Your task to perform on an android device: turn off notifications in google photos Image 0: 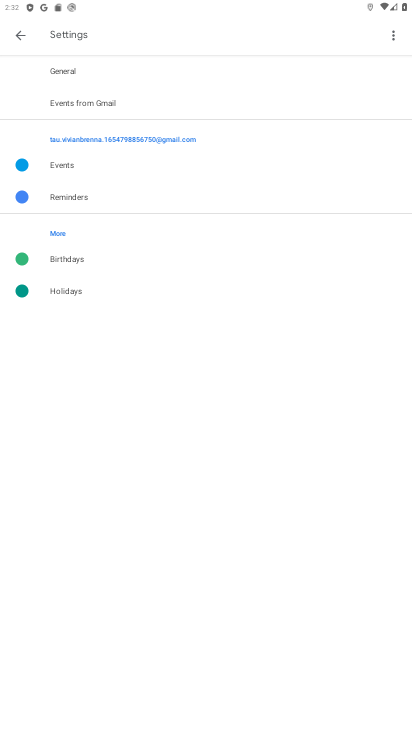
Step 0: press home button
Your task to perform on an android device: turn off notifications in google photos Image 1: 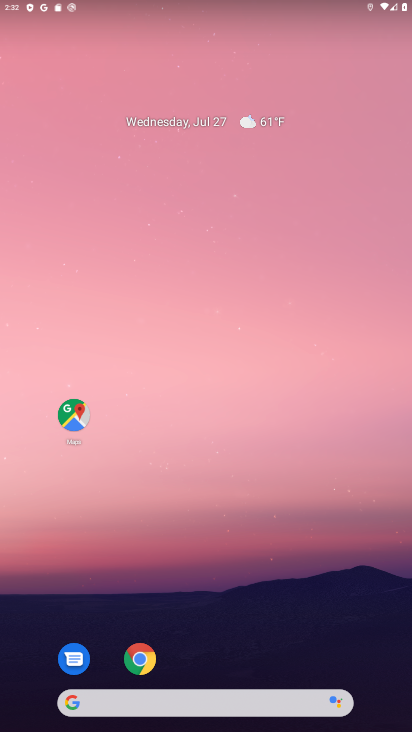
Step 1: drag from (181, 685) to (219, 185)
Your task to perform on an android device: turn off notifications in google photos Image 2: 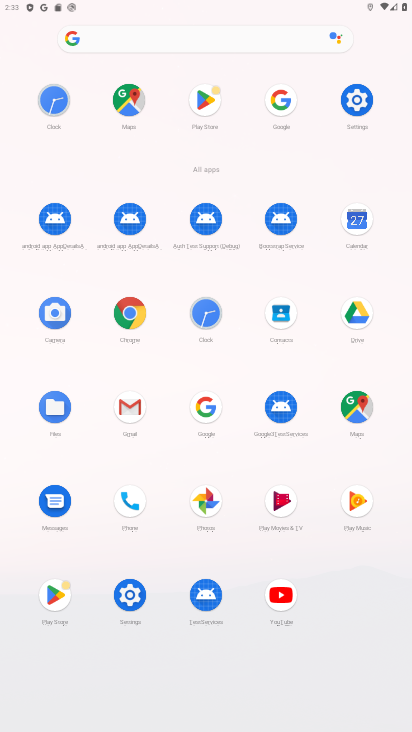
Step 2: click (207, 499)
Your task to perform on an android device: turn off notifications in google photos Image 3: 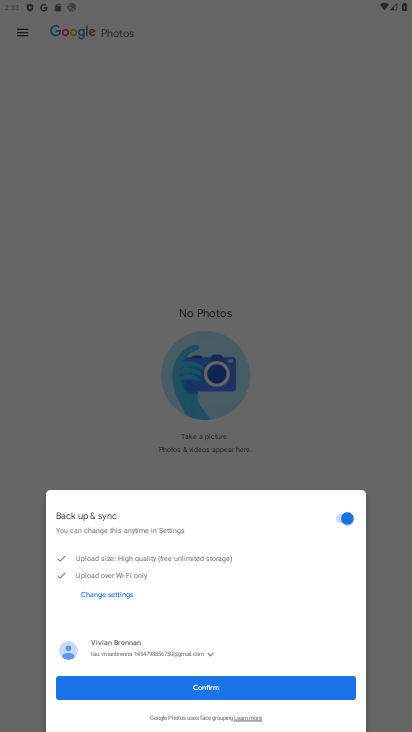
Step 3: click (186, 691)
Your task to perform on an android device: turn off notifications in google photos Image 4: 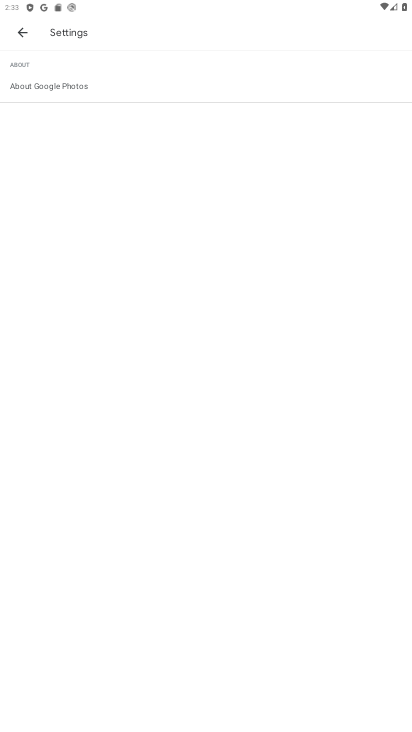
Step 4: click (21, 33)
Your task to perform on an android device: turn off notifications in google photos Image 5: 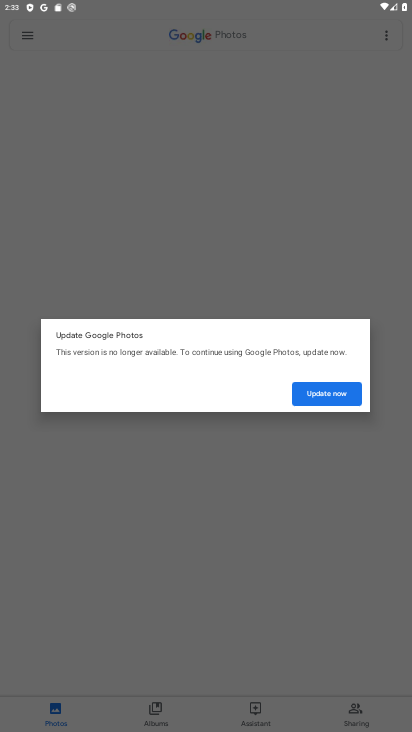
Step 5: click (25, 37)
Your task to perform on an android device: turn off notifications in google photos Image 6: 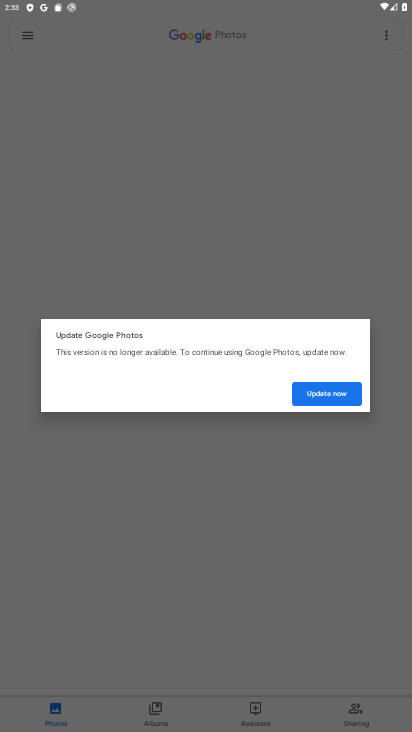
Step 6: click (345, 394)
Your task to perform on an android device: turn off notifications in google photos Image 7: 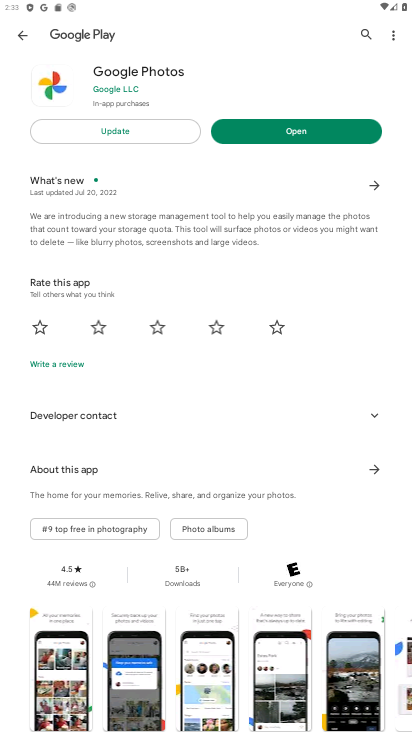
Step 7: click (101, 135)
Your task to perform on an android device: turn off notifications in google photos Image 8: 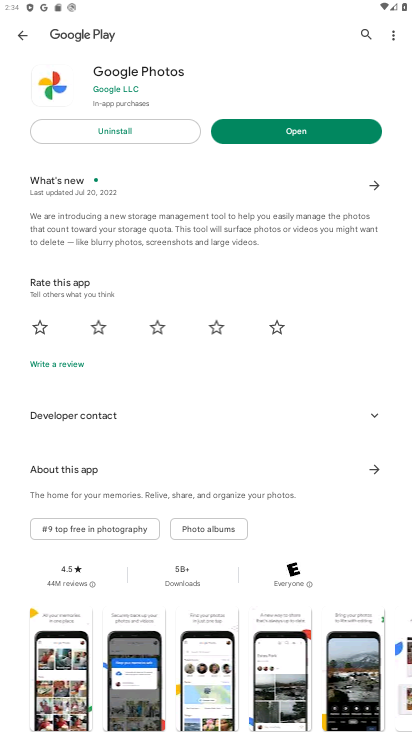
Step 8: click (263, 133)
Your task to perform on an android device: turn off notifications in google photos Image 9: 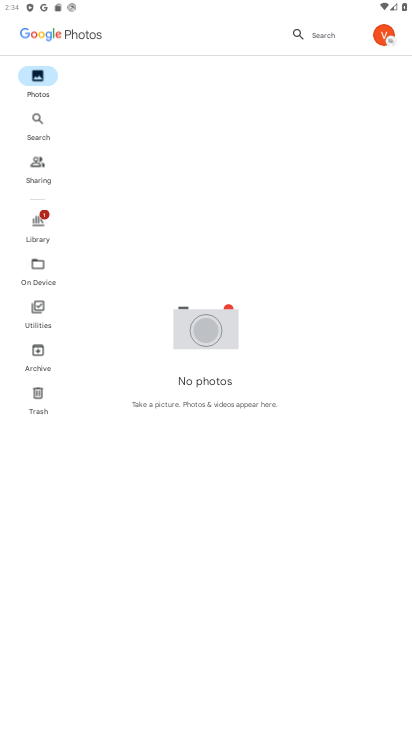
Step 9: click (388, 36)
Your task to perform on an android device: turn off notifications in google photos Image 10: 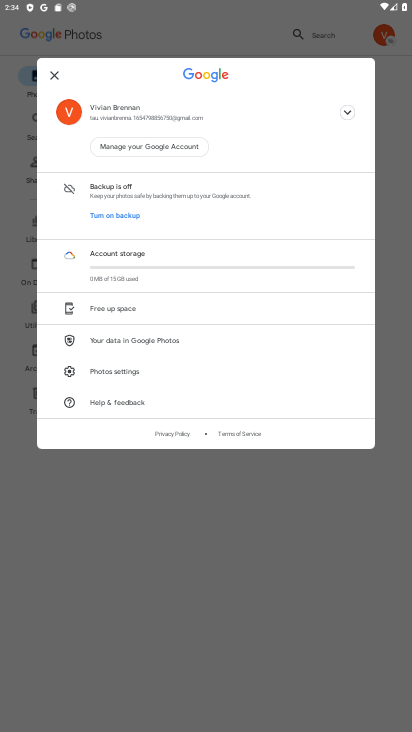
Step 10: click (100, 365)
Your task to perform on an android device: turn off notifications in google photos Image 11: 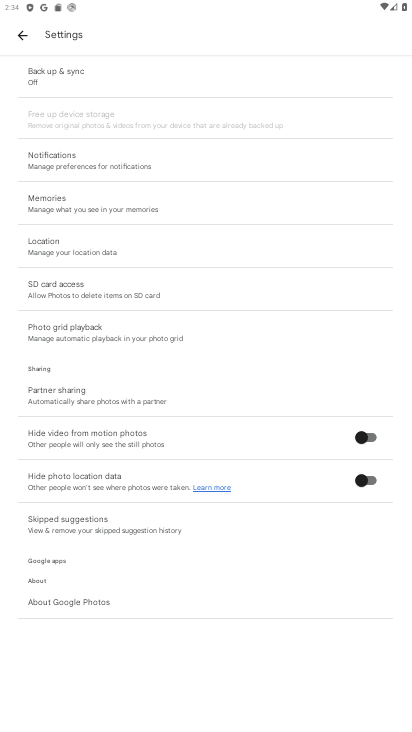
Step 11: click (67, 161)
Your task to perform on an android device: turn off notifications in google photos Image 12: 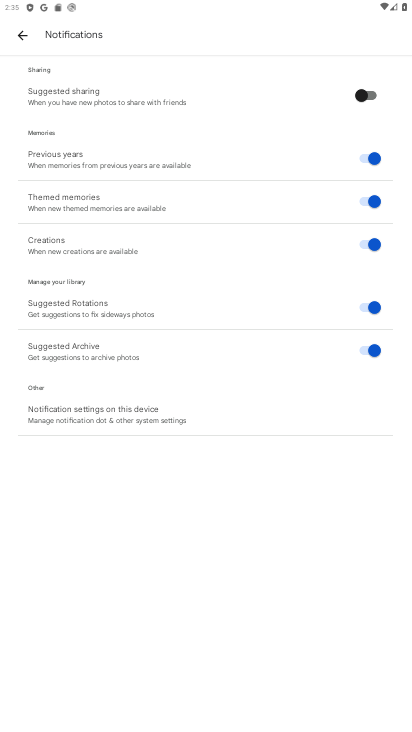
Step 12: click (98, 411)
Your task to perform on an android device: turn off notifications in google photos Image 13: 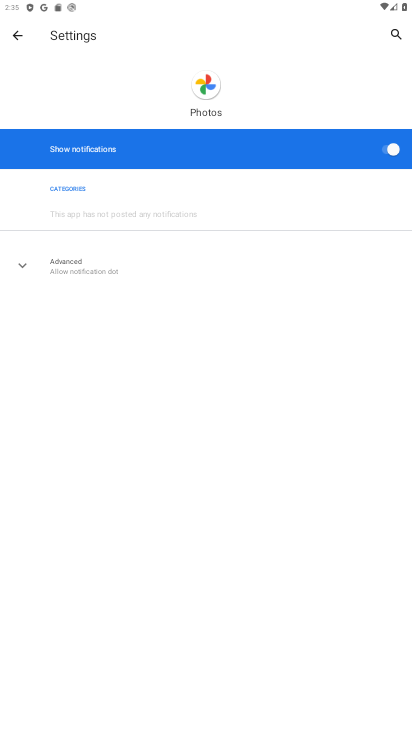
Step 13: click (384, 152)
Your task to perform on an android device: turn off notifications in google photos Image 14: 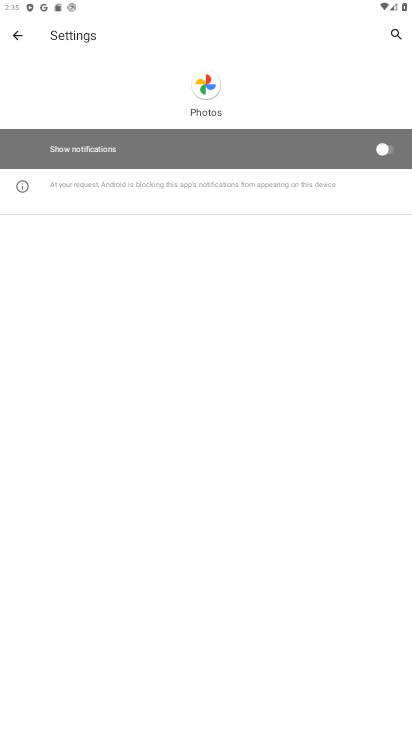
Step 14: task complete